Your task to perform on an android device: Open the web browser Image 0: 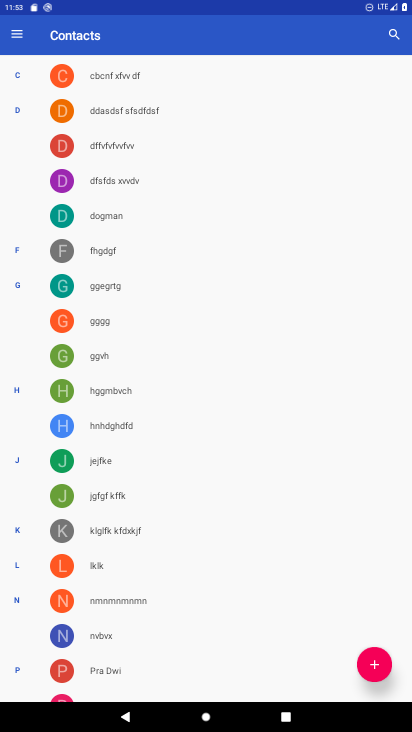
Step 0: press home button
Your task to perform on an android device: Open the web browser Image 1: 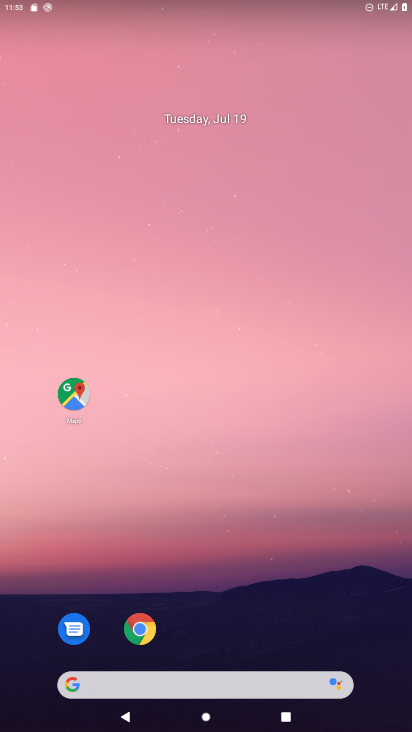
Step 1: drag from (167, 652) to (265, 21)
Your task to perform on an android device: Open the web browser Image 2: 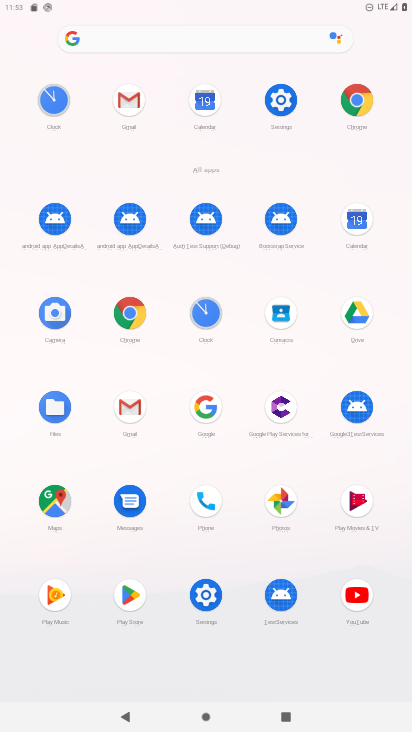
Step 2: click (350, 112)
Your task to perform on an android device: Open the web browser Image 3: 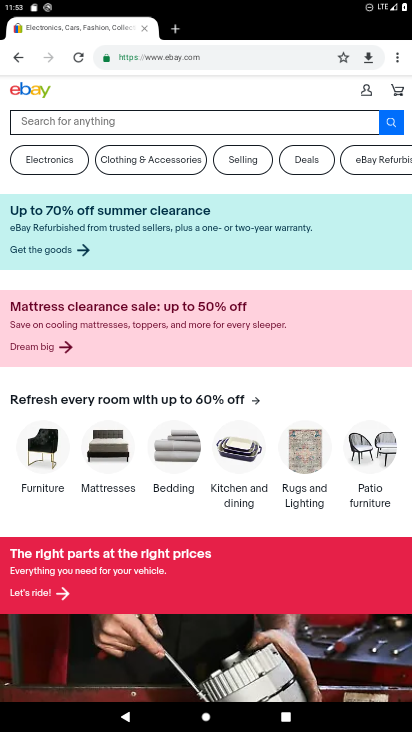
Step 3: task complete